Your task to perform on an android device: Show me popular games on the Play Store Image 0: 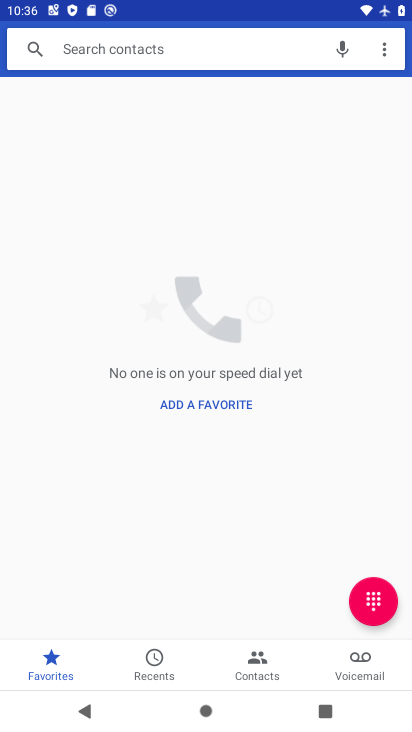
Step 0: press home button
Your task to perform on an android device: Show me popular games on the Play Store Image 1: 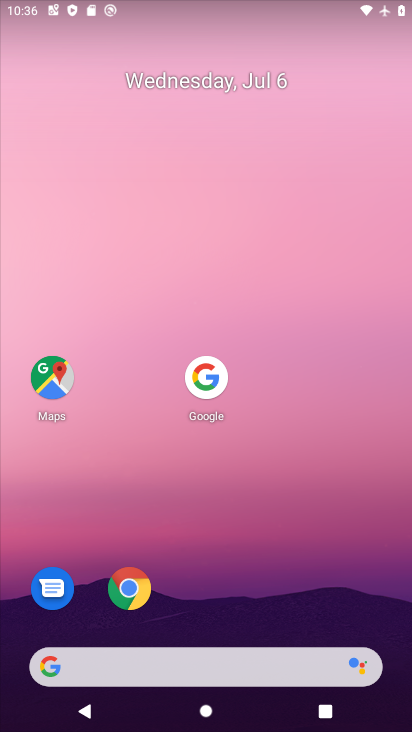
Step 1: drag from (130, 673) to (311, 66)
Your task to perform on an android device: Show me popular games on the Play Store Image 2: 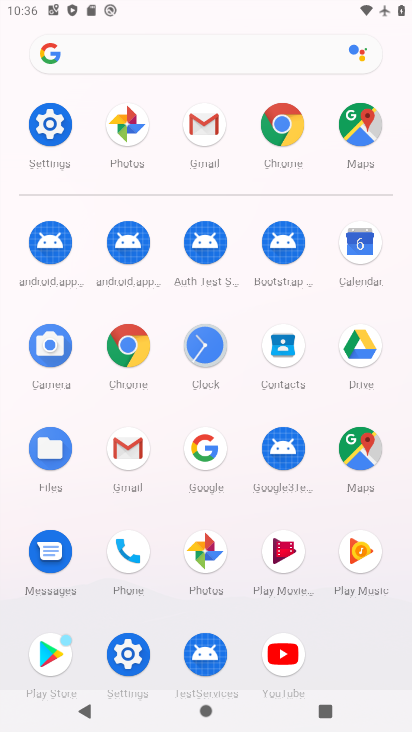
Step 2: click (55, 658)
Your task to perform on an android device: Show me popular games on the Play Store Image 3: 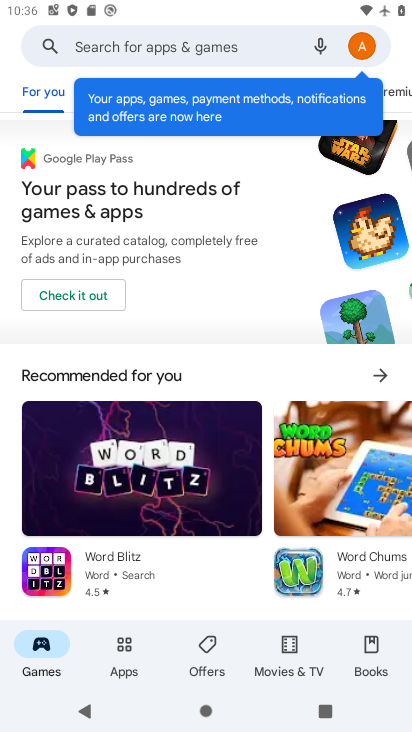
Step 3: task complete